Your task to perform on an android device: turn on the 24-hour format for clock Image 0: 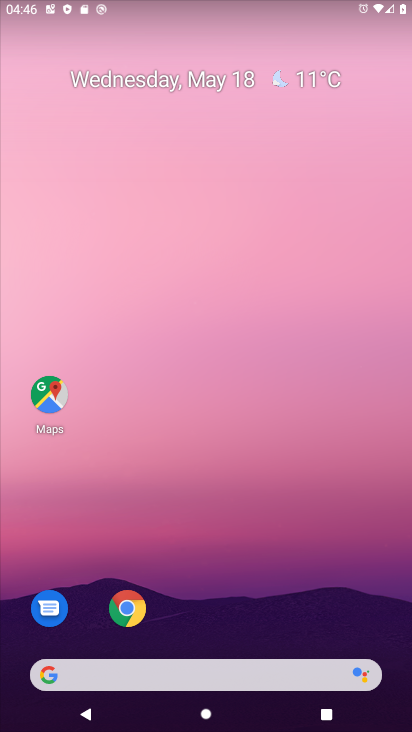
Step 0: drag from (183, 616) to (202, 149)
Your task to perform on an android device: turn on the 24-hour format for clock Image 1: 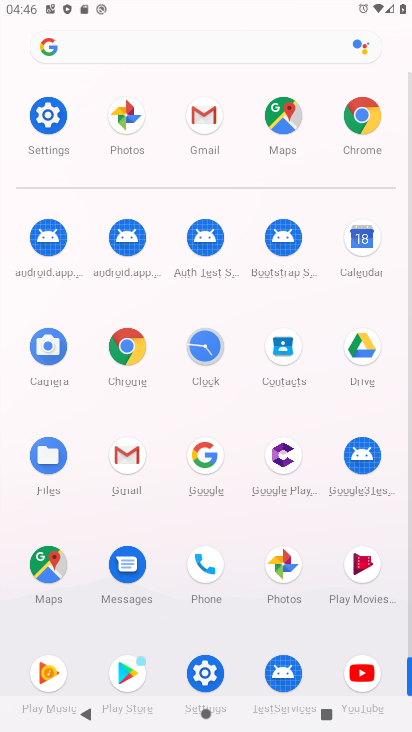
Step 1: click (208, 339)
Your task to perform on an android device: turn on the 24-hour format for clock Image 2: 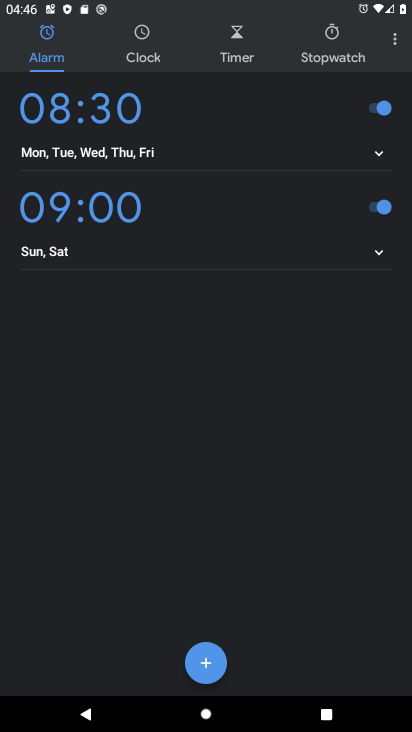
Step 2: click (399, 29)
Your task to perform on an android device: turn on the 24-hour format for clock Image 3: 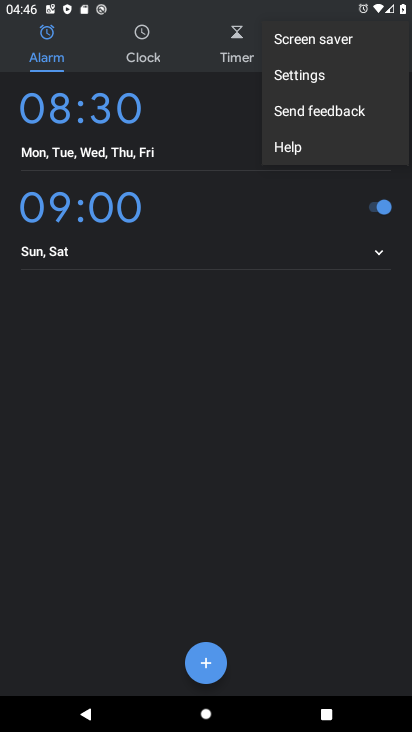
Step 3: click (314, 74)
Your task to perform on an android device: turn on the 24-hour format for clock Image 4: 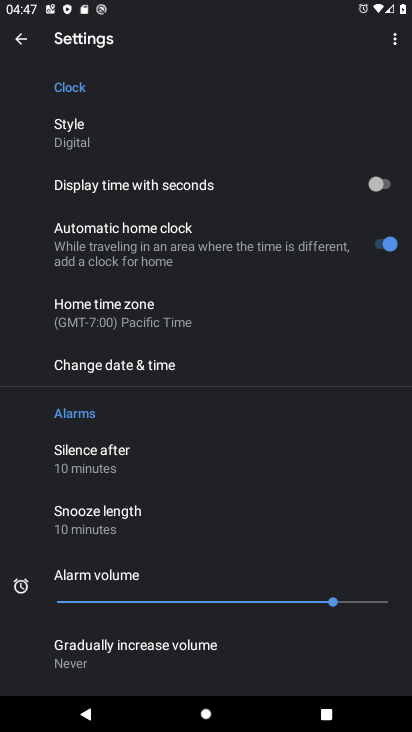
Step 4: click (183, 347)
Your task to perform on an android device: turn on the 24-hour format for clock Image 5: 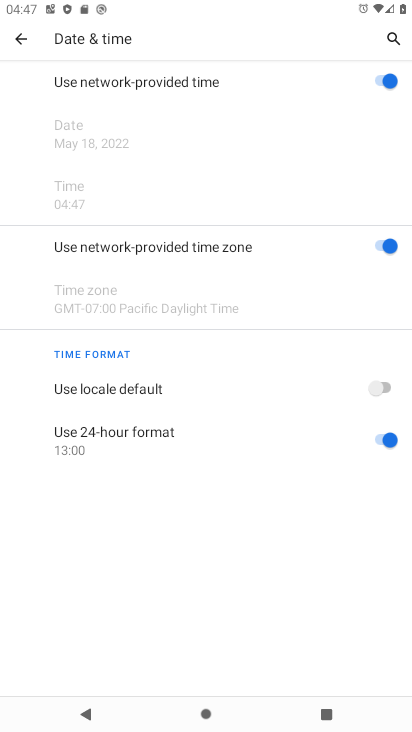
Step 5: task complete